Your task to perform on an android device: open a bookmark in the chrome app Image 0: 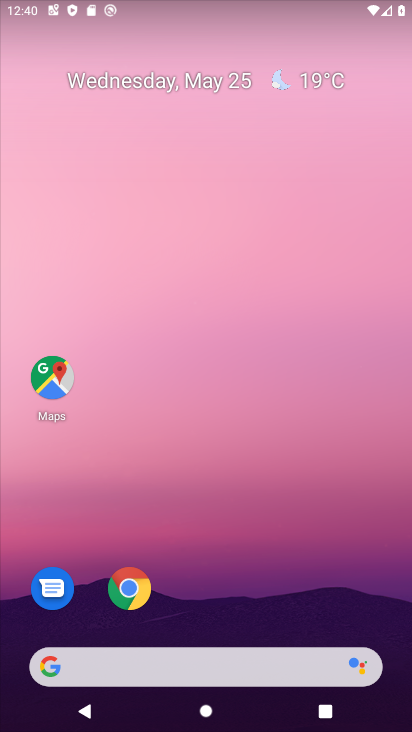
Step 0: click (127, 591)
Your task to perform on an android device: open a bookmark in the chrome app Image 1: 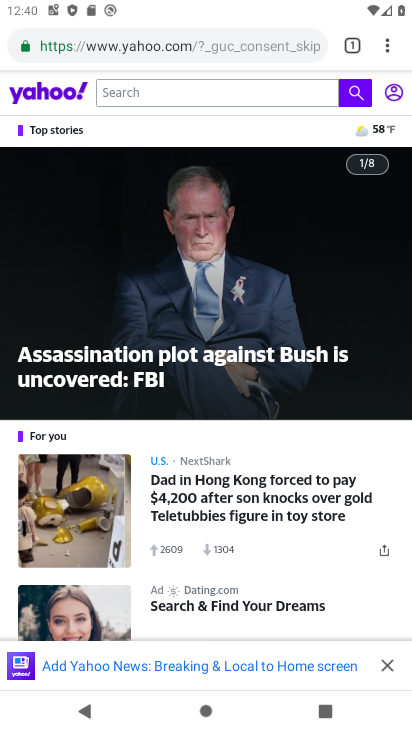
Step 1: drag from (393, 36) to (311, 175)
Your task to perform on an android device: open a bookmark in the chrome app Image 2: 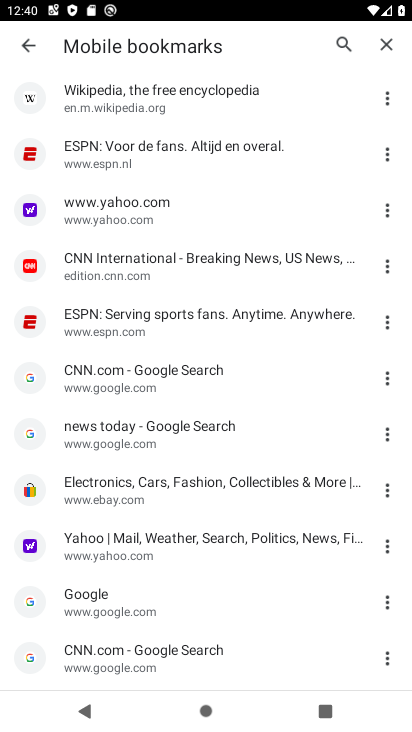
Step 2: click (109, 579)
Your task to perform on an android device: open a bookmark in the chrome app Image 3: 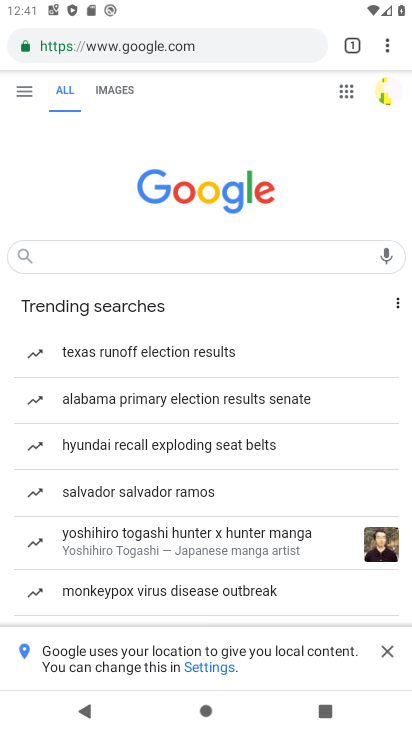
Step 3: task complete